Your task to perform on an android device: change the clock display to digital Image 0: 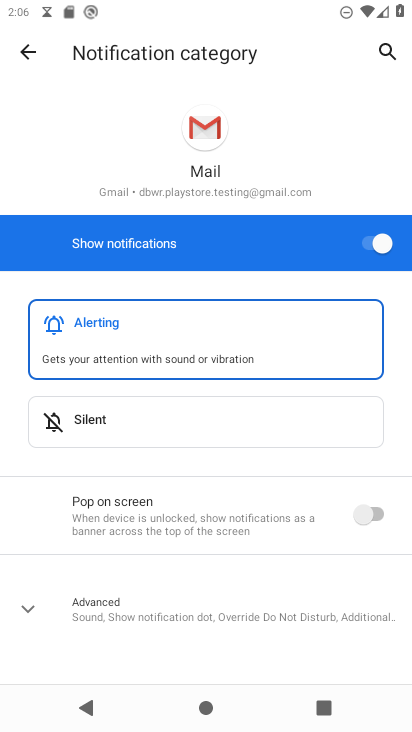
Step 0: press home button
Your task to perform on an android device: change the clock display to digital Image 1: 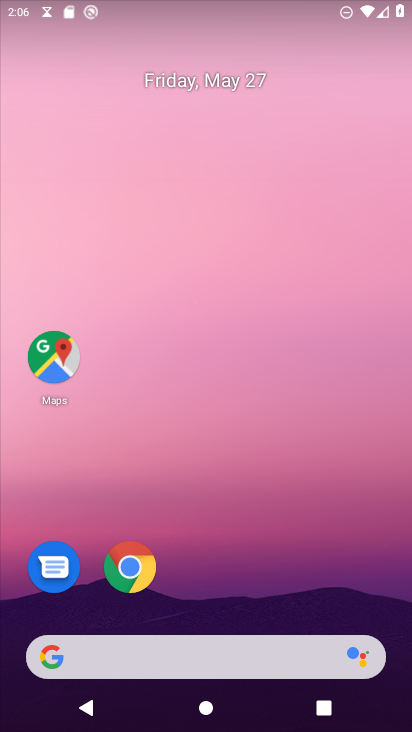
Step 1: drag from (217, 582) to (185, 119)
Your task to perform on an android device: change the clock display to digital Image 2: 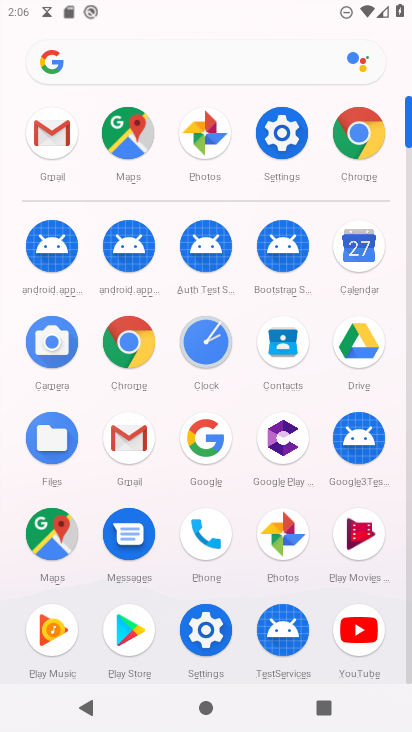
Step 2: click (212, 353)
Your task to perform on an android device: change the clock display to digital Image 3: 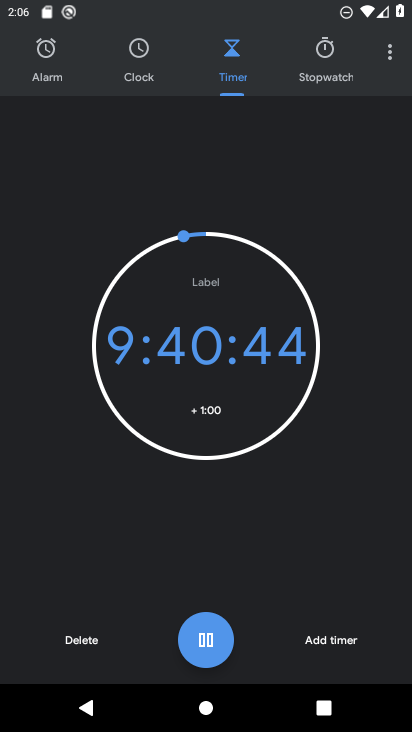
Step 3: click (393, 69)
Your task to perform on an android device: change the clock display to digital Image 4: 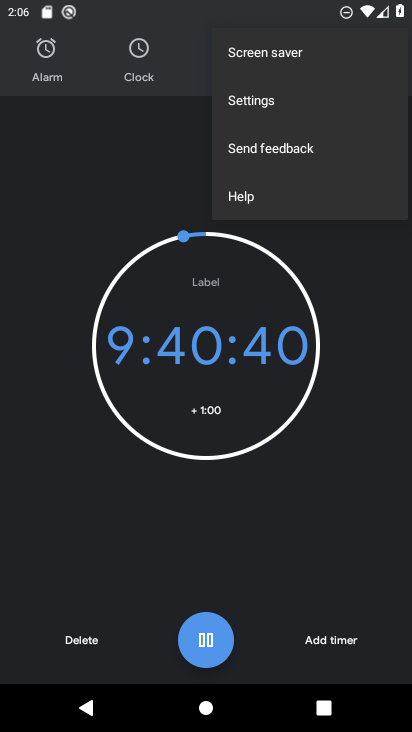
Step 4: click (270, 103)
Your task to perform on an android device: change the clock display to digital Image 5: 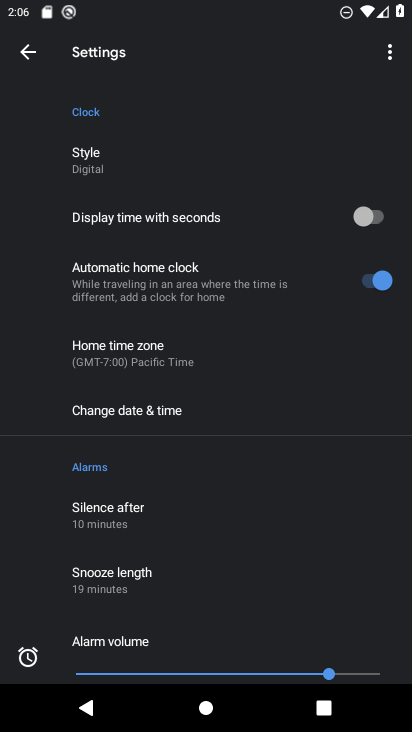
Step 5: click (144, 178)
Your task to perform on an android device: change the clock display to digital Image 6: 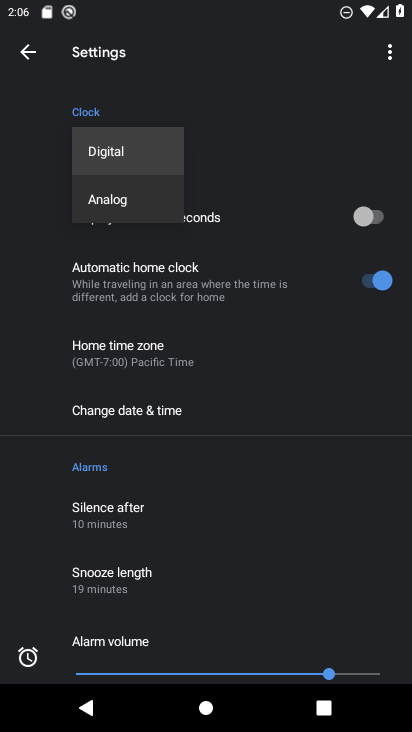
Step 6: task complete